Your task to perform on an android device: toggle wifi Image 0: 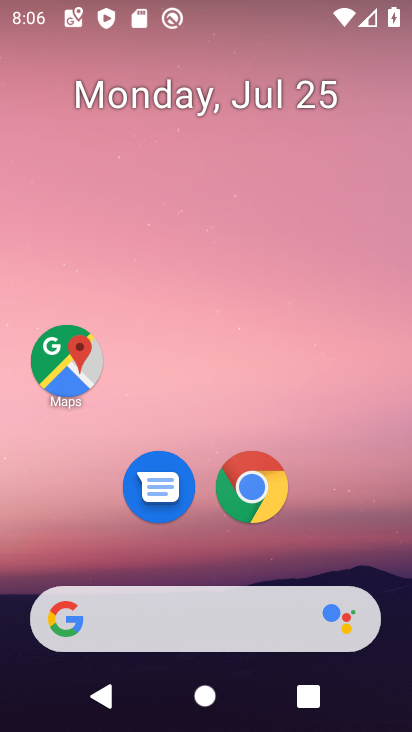
Step 0: drag from (147, 80) to (223, 568)
Your task to perform on an android device: toggle wifi Image 1: 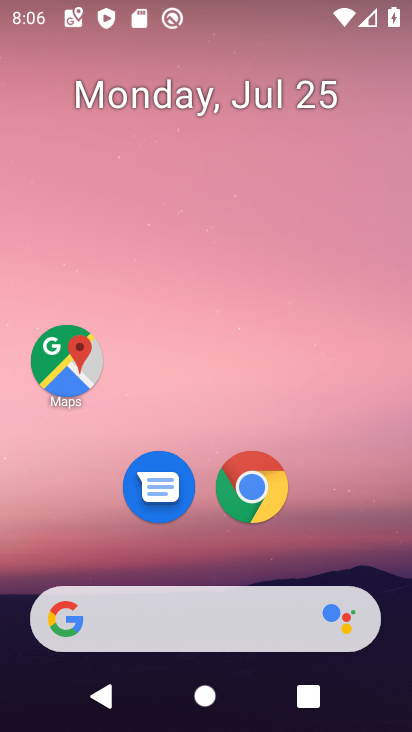
Step 1: drag from (174, 12) to (168, 606)
Your task to perform on an android device: toggle wifi Image 2: 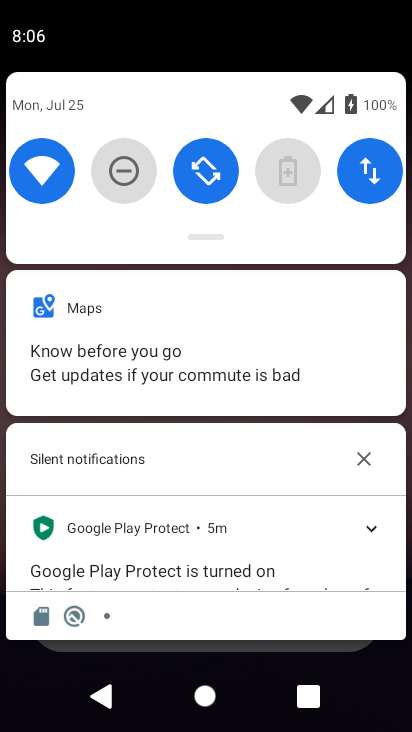
Step 2: click (37, 175)
Your task to perform on an android device: toggle wifi Image 3: 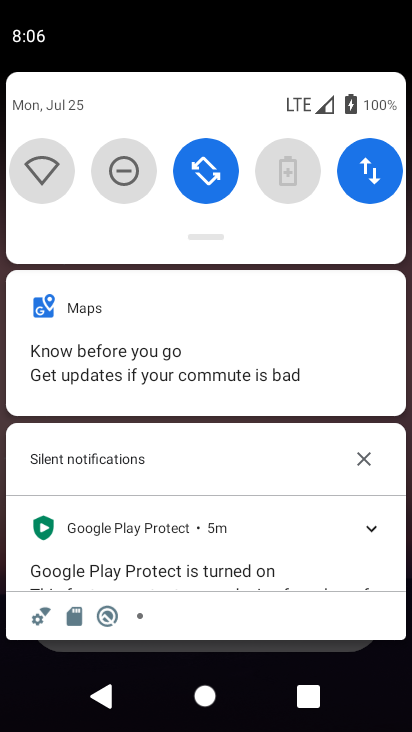
Step 3: task complete